Your task to perform on an android device: open app "Yahoo Mail" Image 0: 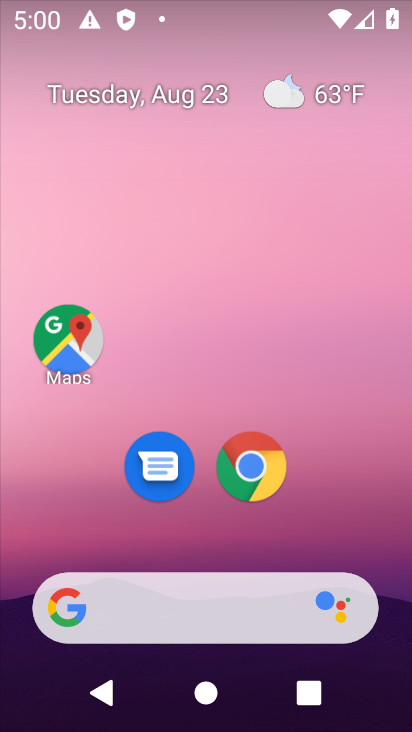
Step 0: drag from (229, 580) to (244, 49)
Your task to perform on an android device: open app "Yahoo Mail" Image 1: 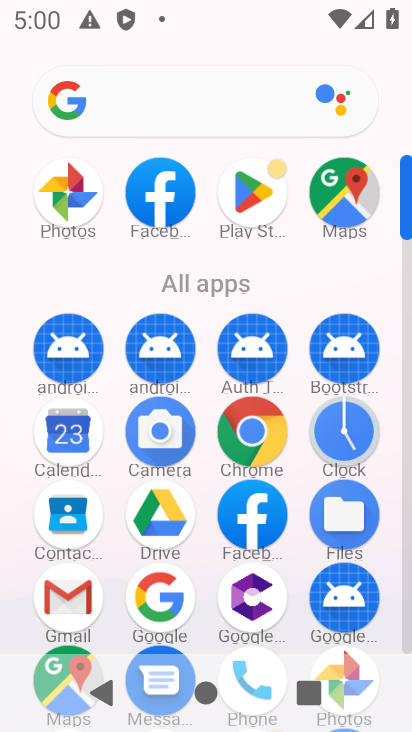
Step 1: click (263, 215)
Your task to perform on an android device: open app "Yahoo Mail" Image 2: 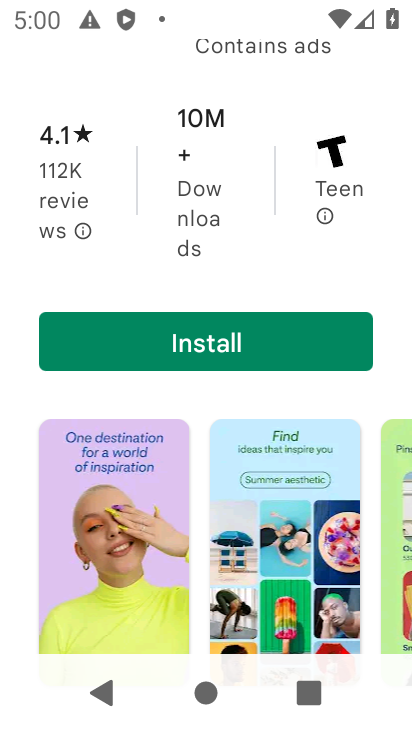
Step 2: drag from (274, 129) to (319, 465)
Your task to perform on an android device: open app "Yahoo Mail" Image 3: 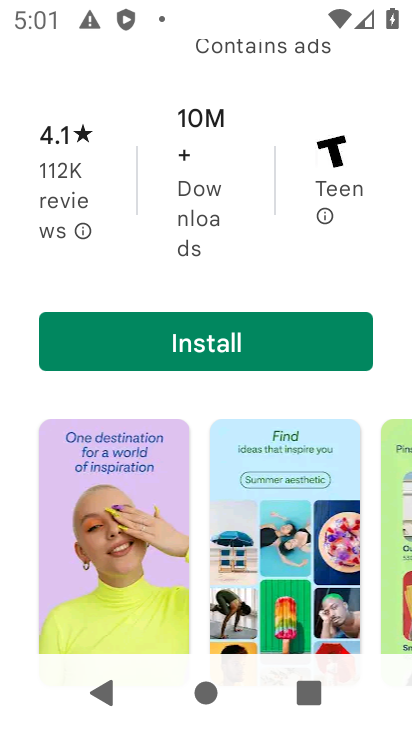
Step 3: drag from (265, 93) to (262, 480)
Your task to perform on an android device: open app "Yahoo Mail" Image 4: 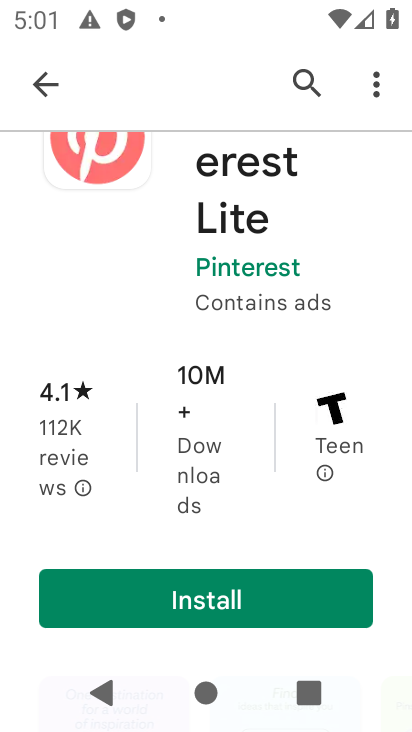
Step 4: click (300, 80)
Your task to perform on an android device: open app "Yahoo Mail" Image 5: 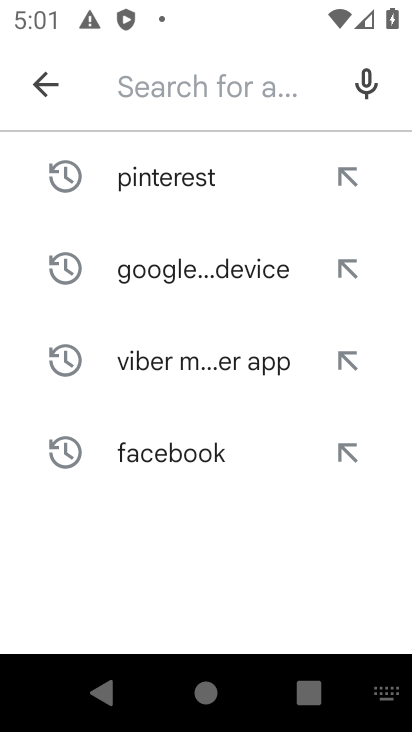
Step 5: type "yahoo mail"
Your task to perform on an android device: open app "Yahoo Mail" Image 6: 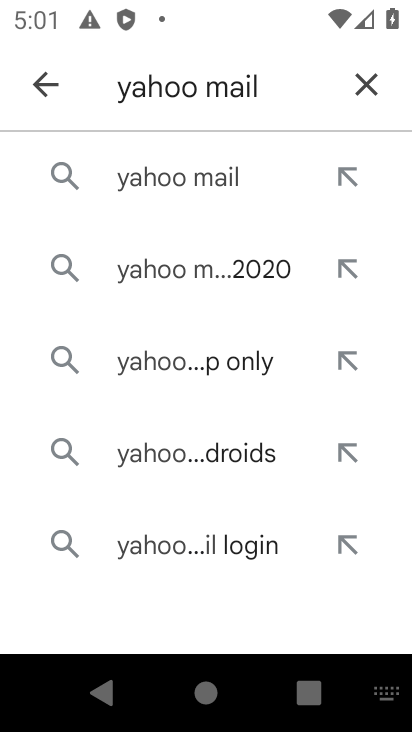
Step 6: click (233, 182)
Your task to perform on an android device: open app "Yahoo Mail" Image 7: 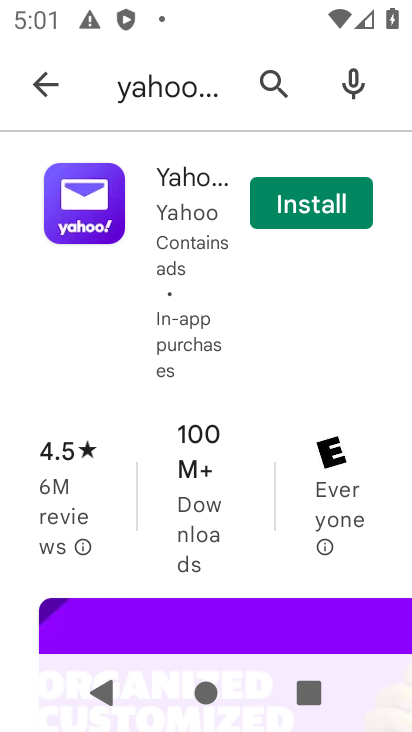
Step 7: task complete